Your task to perform on an android device: clear history in the chrome app Image 0: 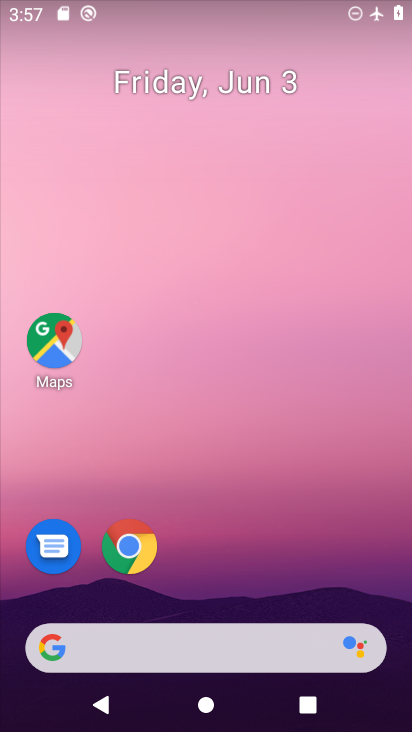
Step 0: click (137, 538)
Your task to perform on an android device: clear history in the chrome app Image 1: 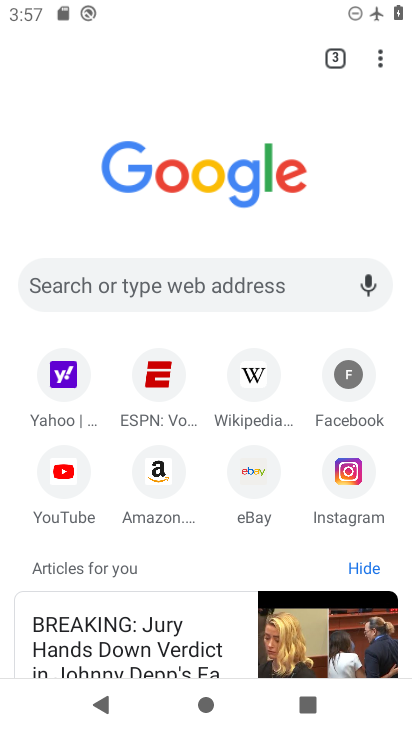
Step 1: click (374, 61)
Your task to perform on an android device: clear history in the chrome app Image 2: 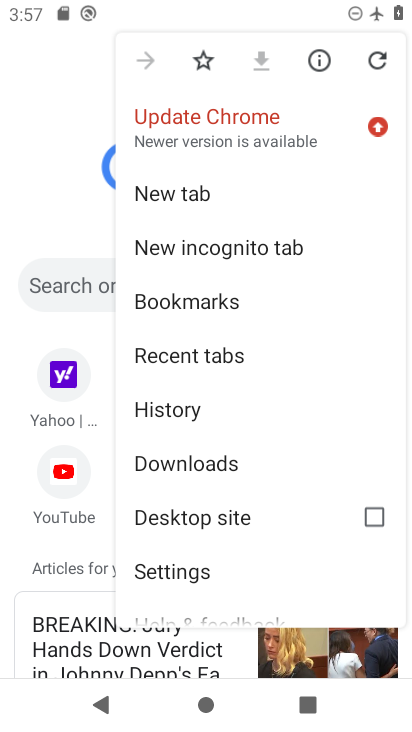
Step 2: click (186, 403)
Your task to perform on an android device: clear history in the chrome app Image 3: 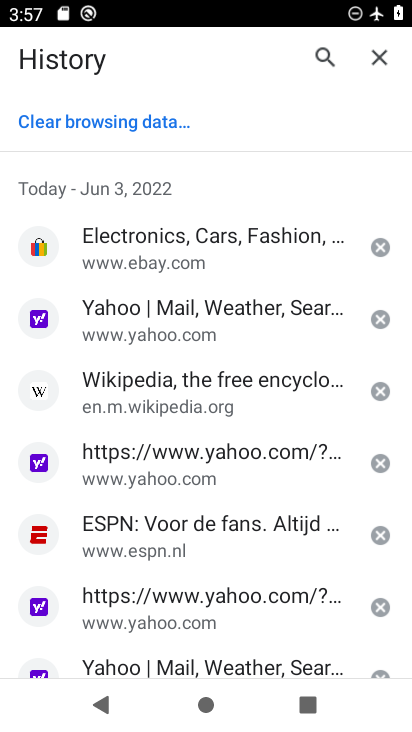
Step 3: click (136, 111)
Your task to perform on an android device: clear history in the chrome app Image 4: 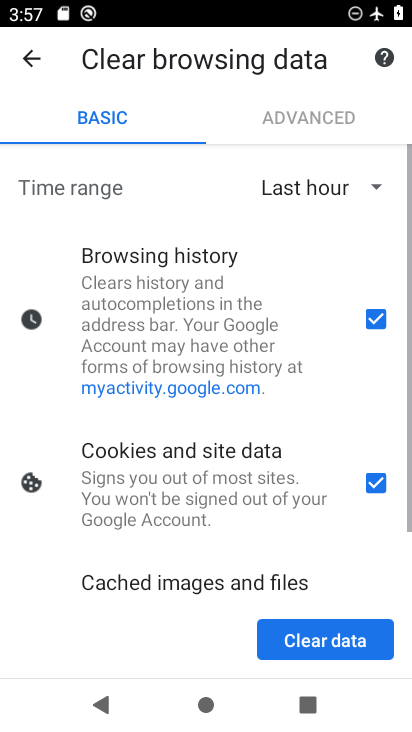
Step 4: click (359, 632)
Your task to perform on an android device: clear history in the chrome app Image 5: 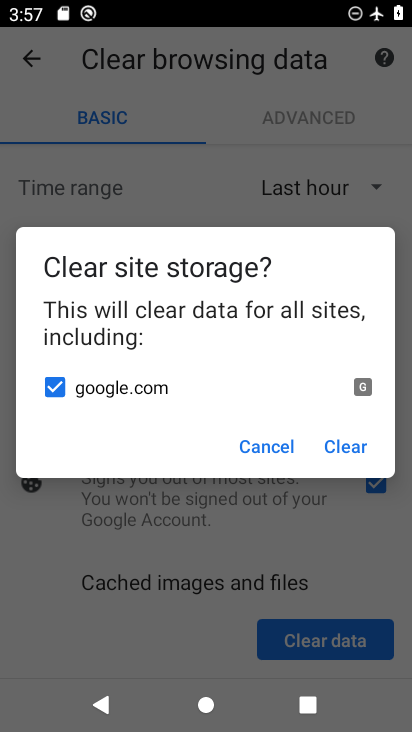
Step 5: click (353, 438)
Your task to perform on an android device: clear history in the chrome app Image 6: 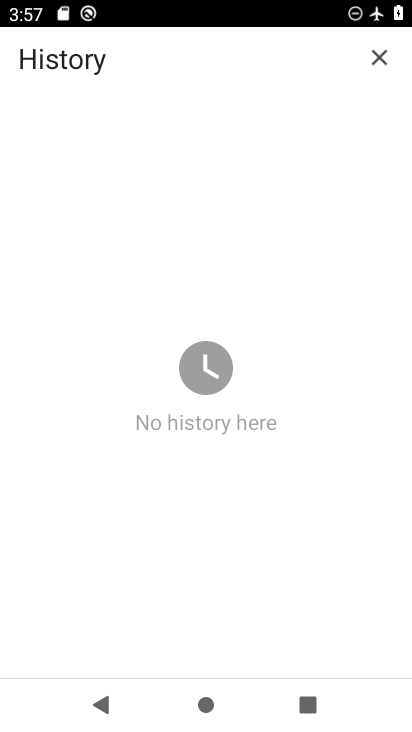
Step 6: task complete